Your task to perform on an android device: Go to network settings Image 0: 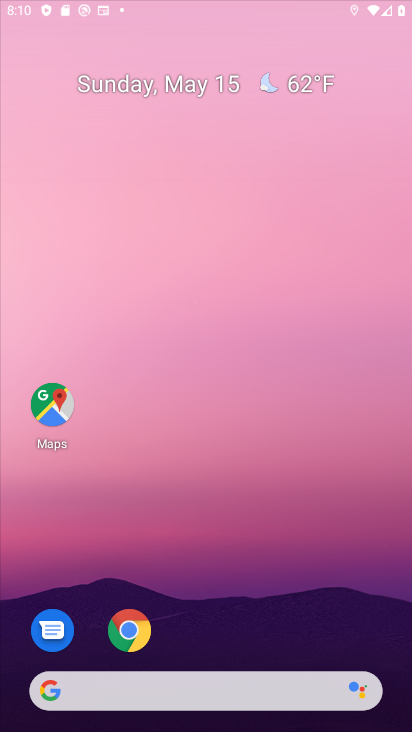
Step 0: drag from (168, 521) to (262, 85)
Your task to perform on an android device: Go to network settings Image 1: 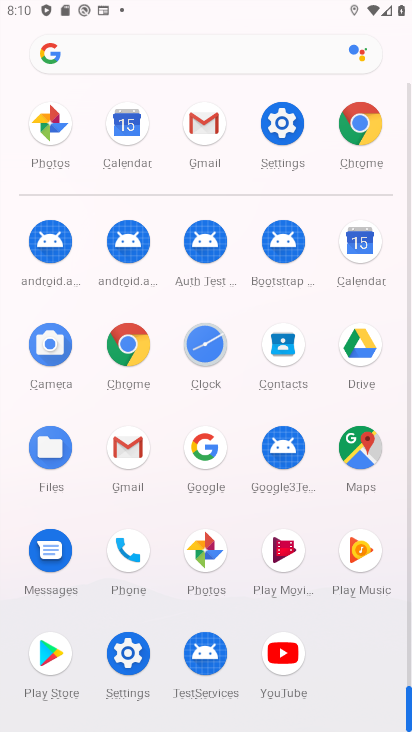
Step 1: click (208, 556)
Your task to perform on an android device: Go to network settings Image 2: 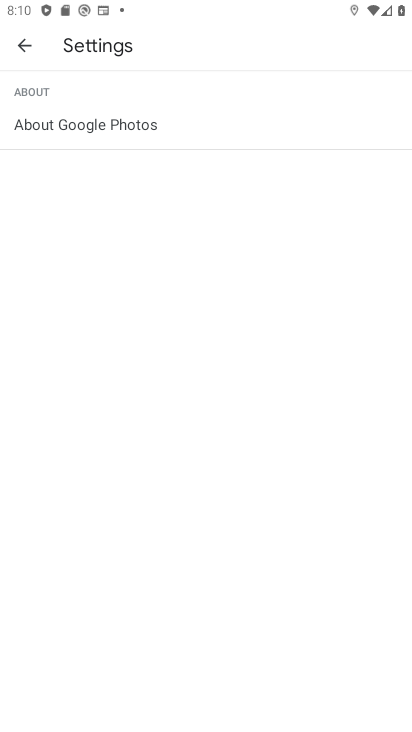
Step 2: press home button
Your task to perform on an android device: Go to network settings Image 3: 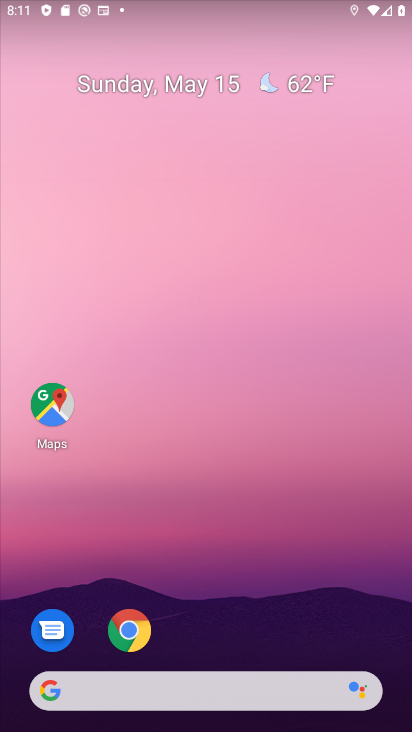
Step 3: drag from (199, 609) to (219, 233)
Your task to perform on an android device: Go to network settings Image 4: 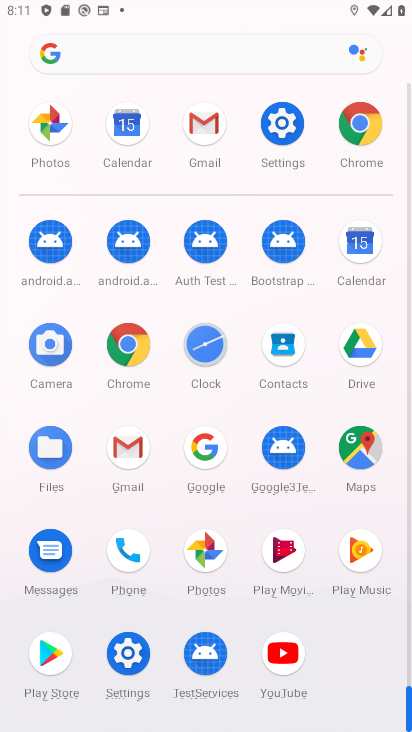
Step 4: click (293, 133)
Your task to perform on an android device: Go to network settings Image 5: 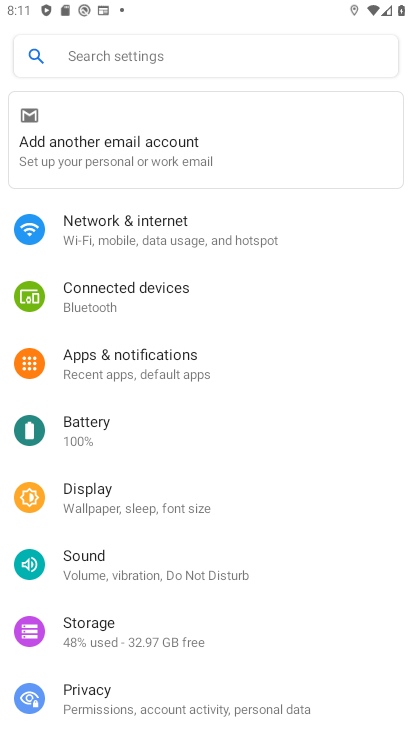
Step 5: click (170, 240)
Your task to perform on an android device: Go to network settings Image 6: 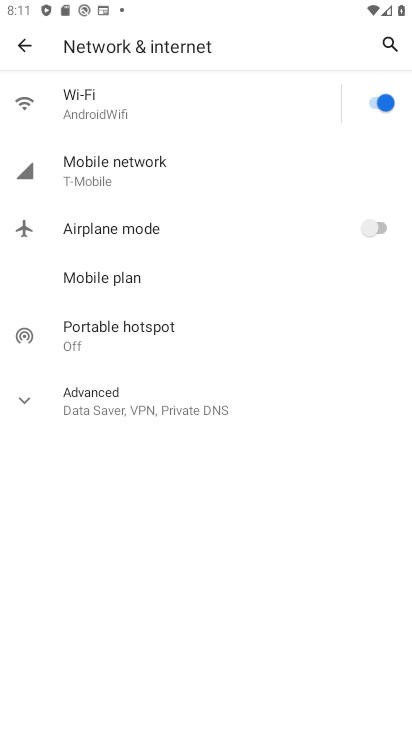
Step 6: task complete